Your task to perform on an android device: Go to internet settings Image 0: 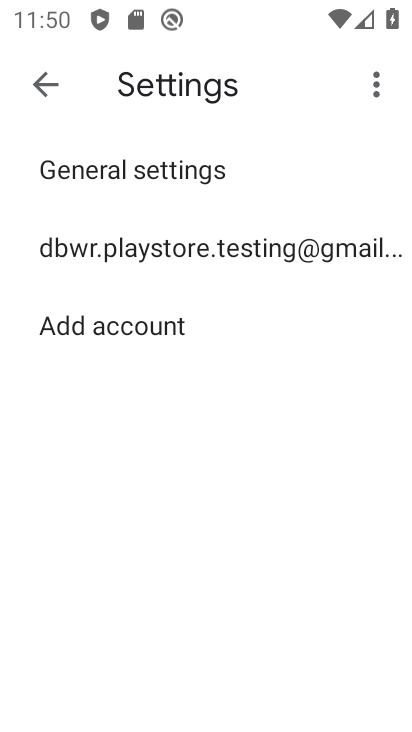
Step 0: drag from (248, 17) to (238, 357)
Your task to perform on an android device: Go to internet settings Image 1: 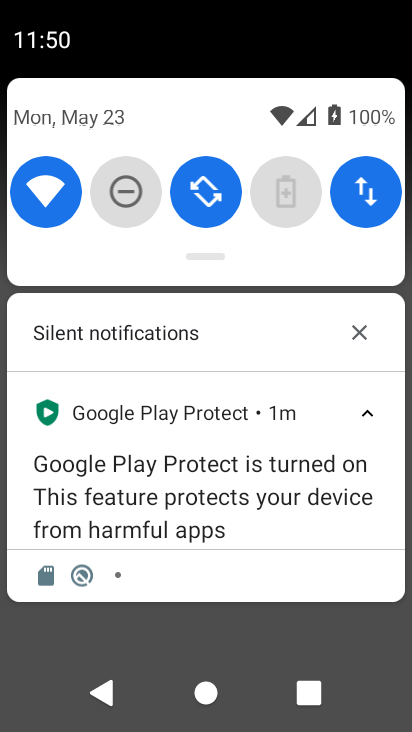
Step 1: click (358, 196)
Your task to perform on an android device: Go to internet settings Image 2: 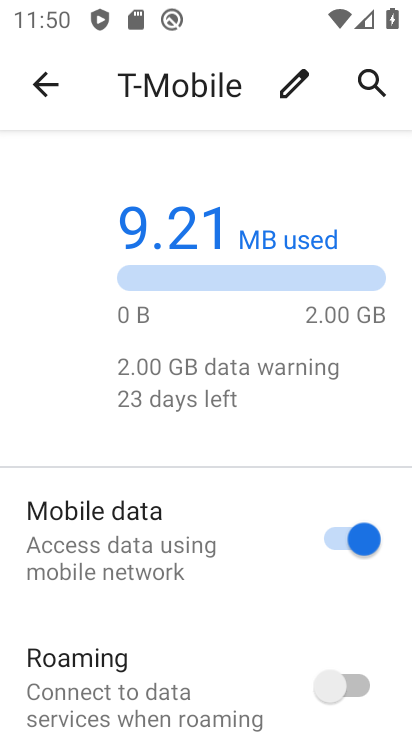
Step 2: task complete